Your task to perform on an android device: add a contact in the contacts app Image 0: 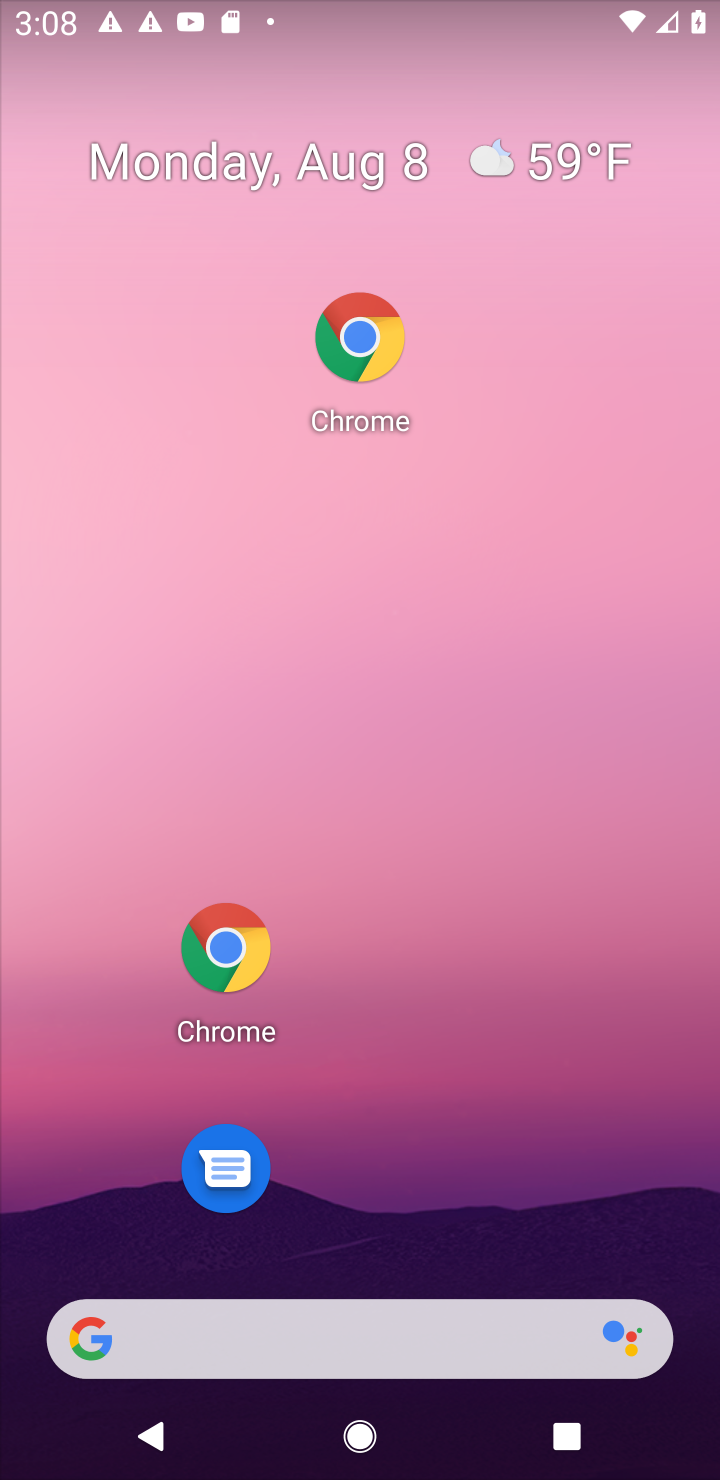
Step 0: click (213, 1017)
Your task to perform on an android device: add a contact in the contacts app Image 1: 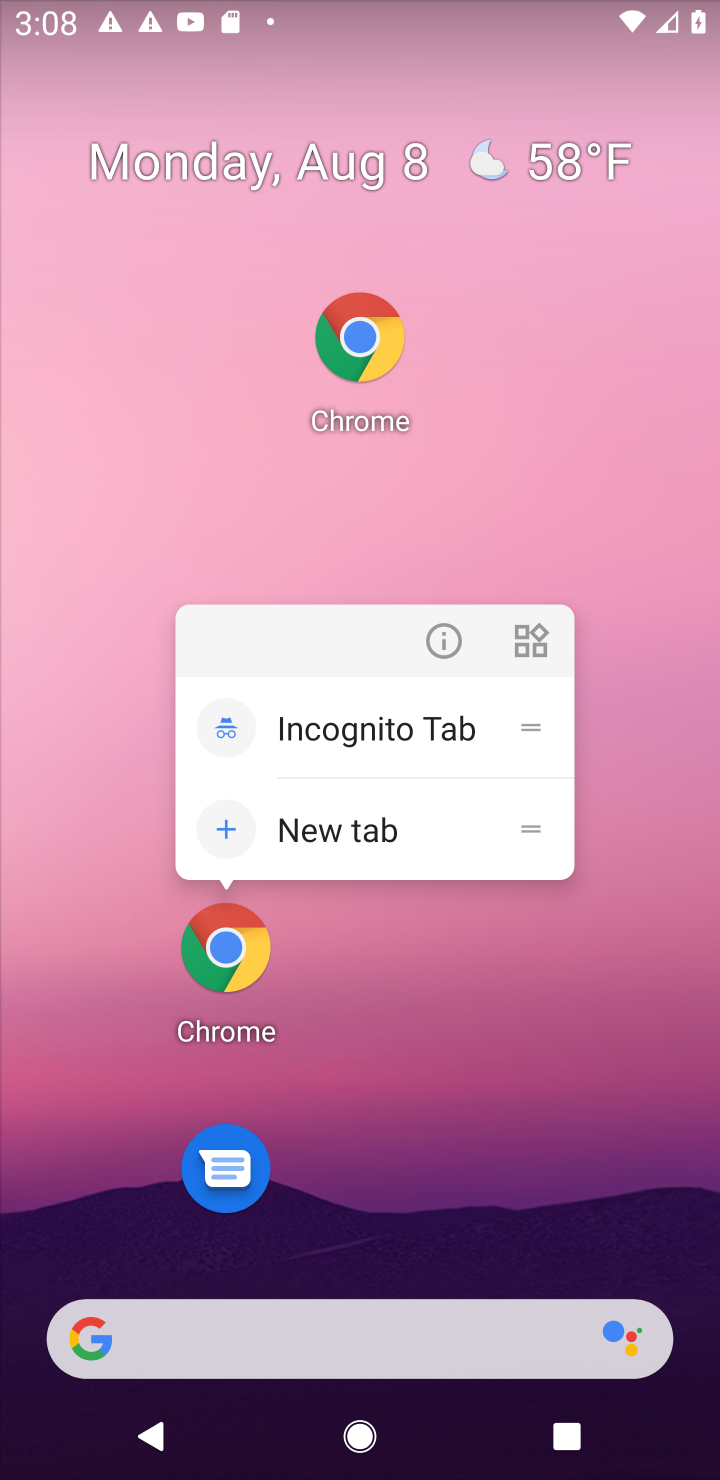
Step 1: press home button
Your task to perform on an android device: add a contact in the contacts app Image 2: 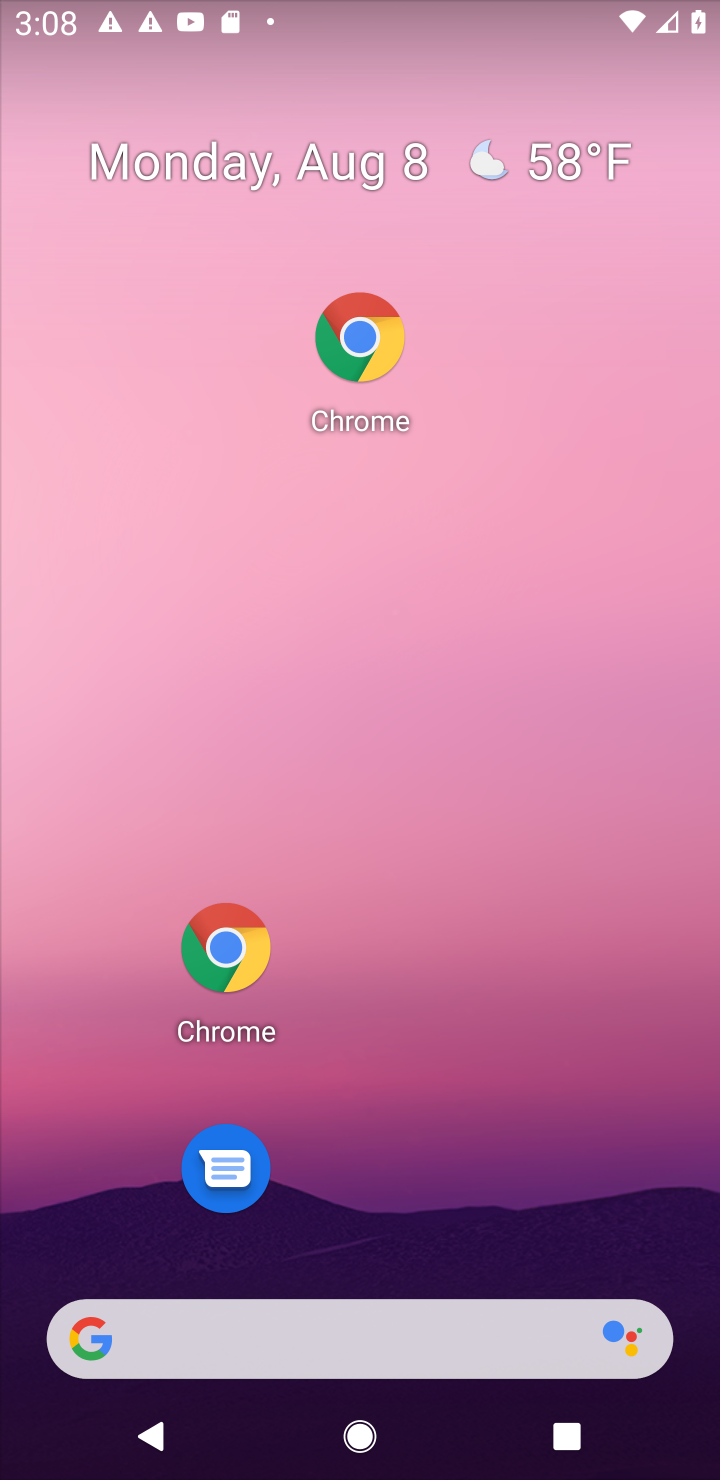
Step 2: drag from (428, 1241) to (449, 398)
Your task to perform on an android device: add a contact in the contacts app Image 3: 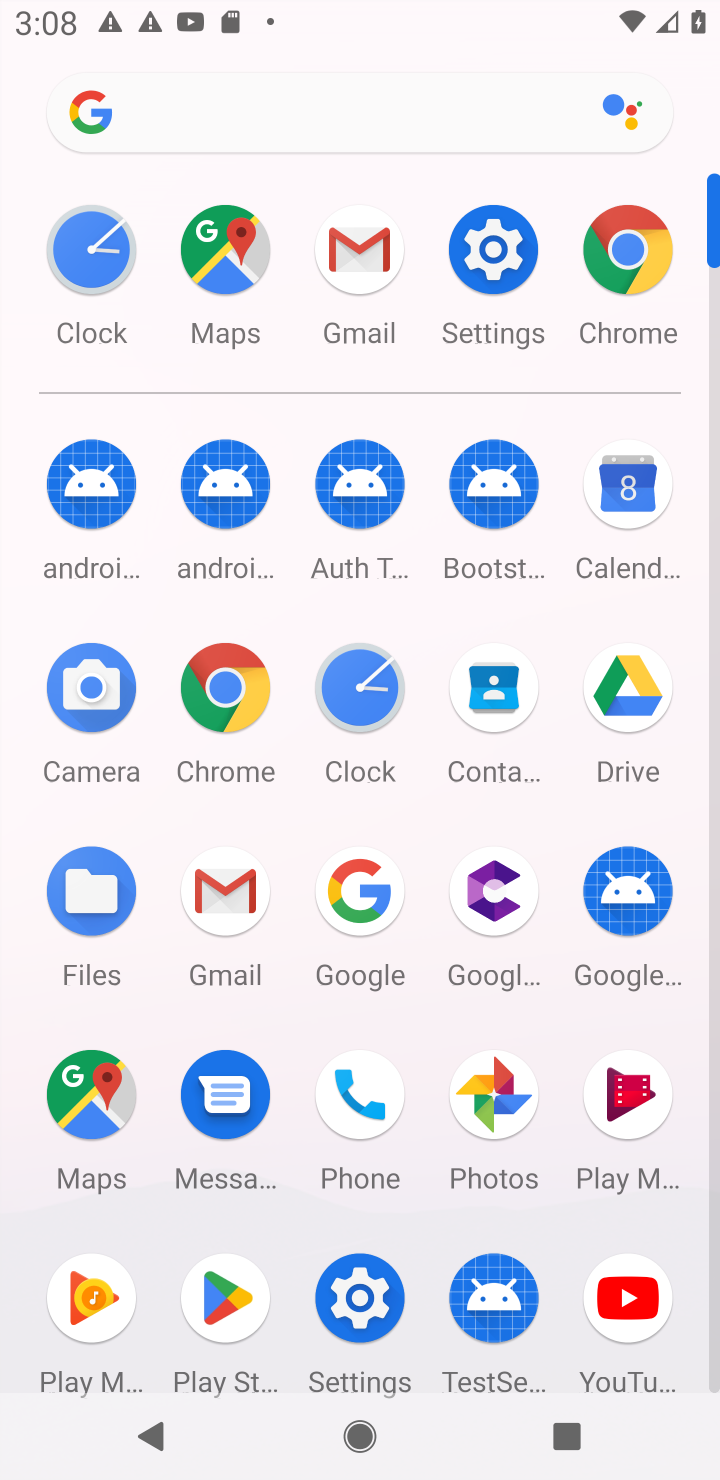
Step 3: click (636, 523)
Your task to perform on an android device: add a contact in the contacts app Image 4: 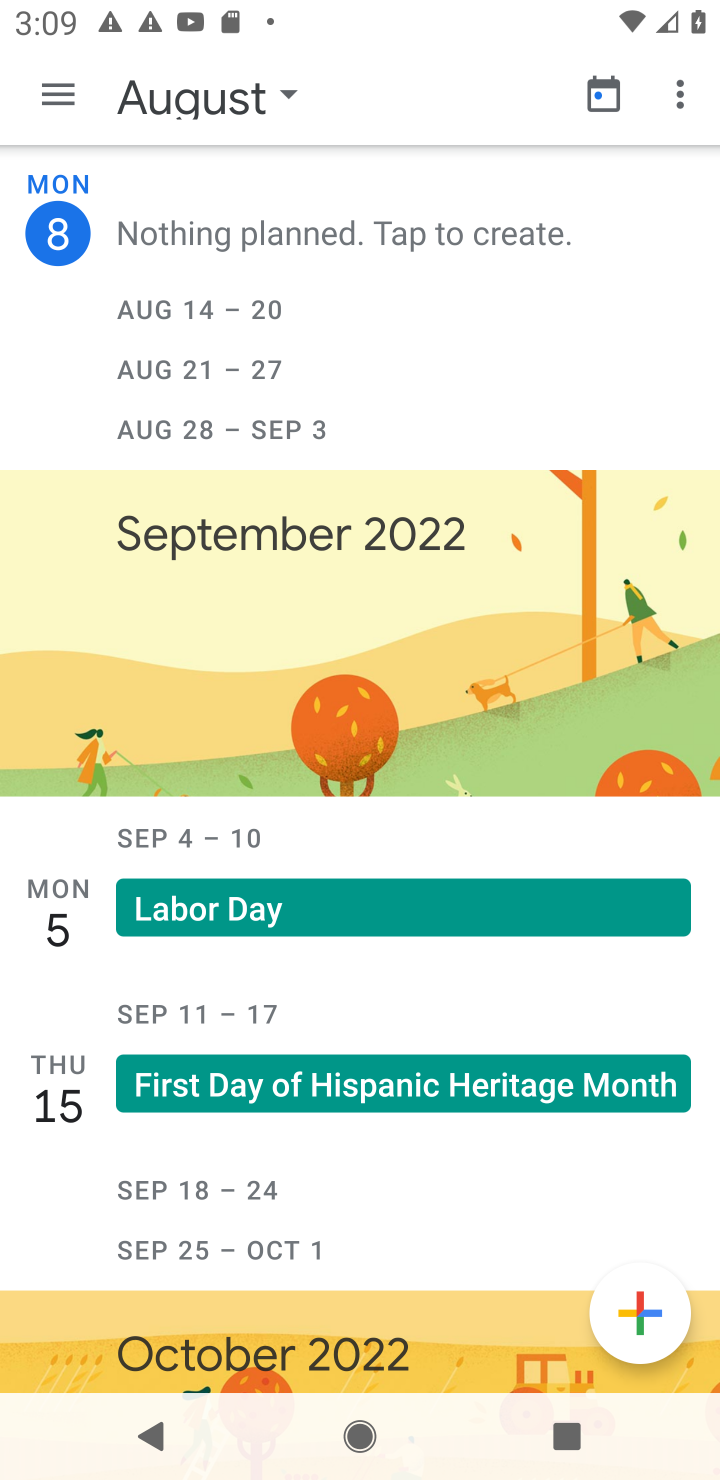
Step 4: task complete